Your task to perform on an android device: open a bookmark in the chrome app Image 0: 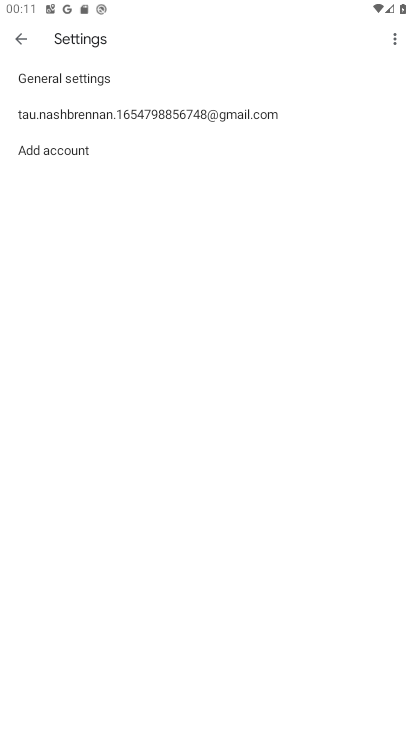
Step 0: click (15, 36)
Your task to perform on an android device: open a bookmark in the chrome app Image 1: 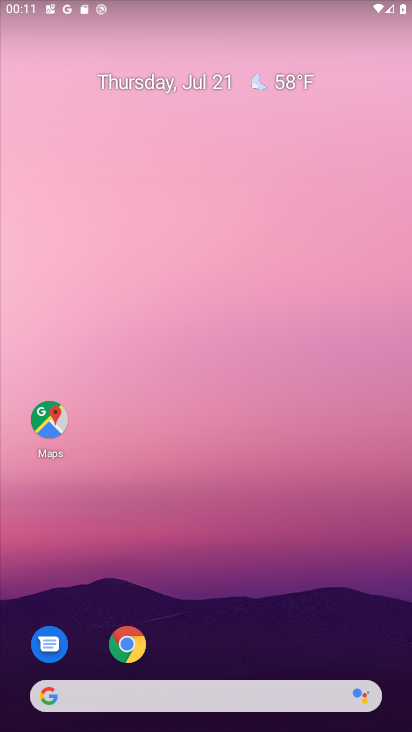
Step 1: click (125, 633)
Your task to perform on an android device: open a bookmark in the chrome app Image 2: 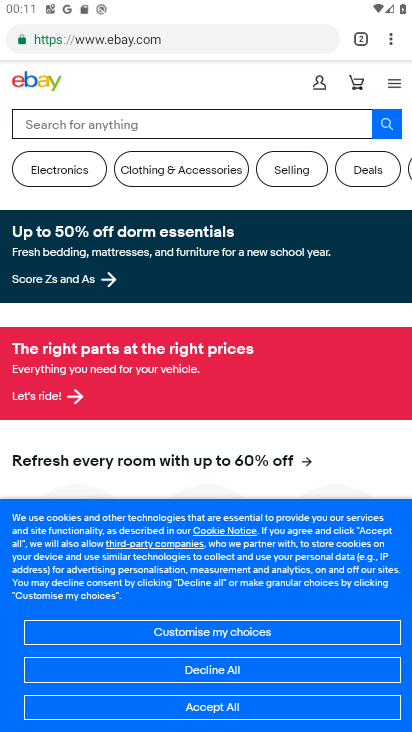
Step 2: click (389, 40)
Your task to perform on an android device: open a bookmark in the chrome app Image 3: 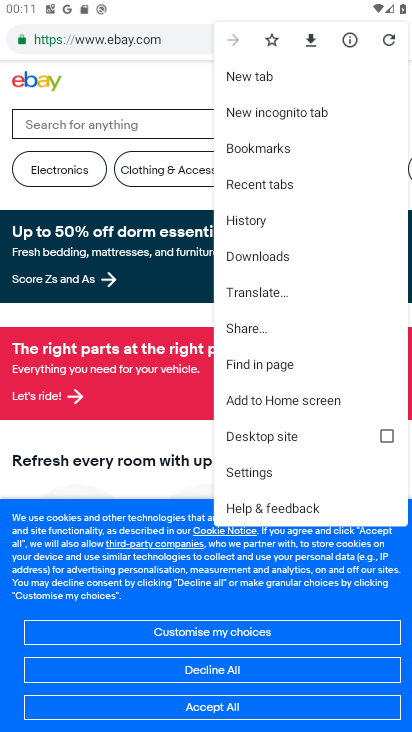
Step 3: click (301, 145)
Your task to perform on an android device: open a bookmark in the chrome app Image 4: 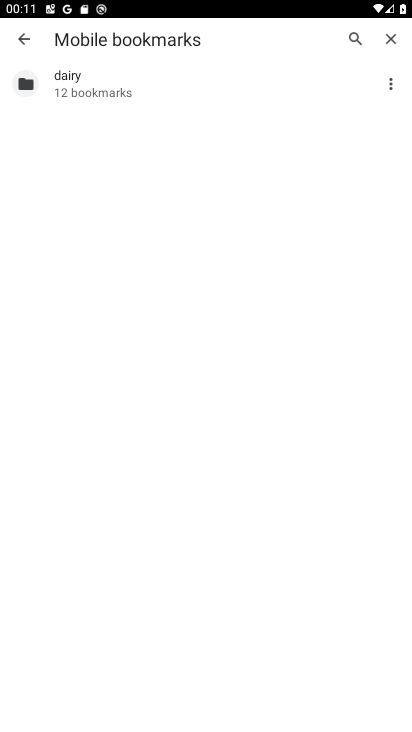
Step 4: click (394, 75)
Your task to perform on an android device: open a bookmark in the chrome app Image 5: 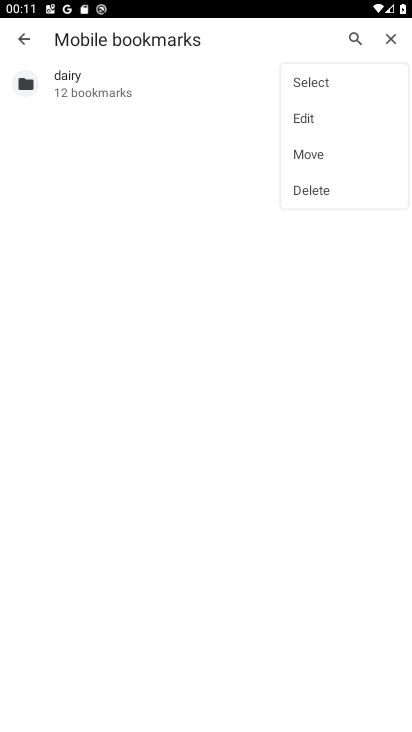
Step 5: click (115, 497)
Your task to perform on an android device: open a bookmark in the chrome app Image 6: 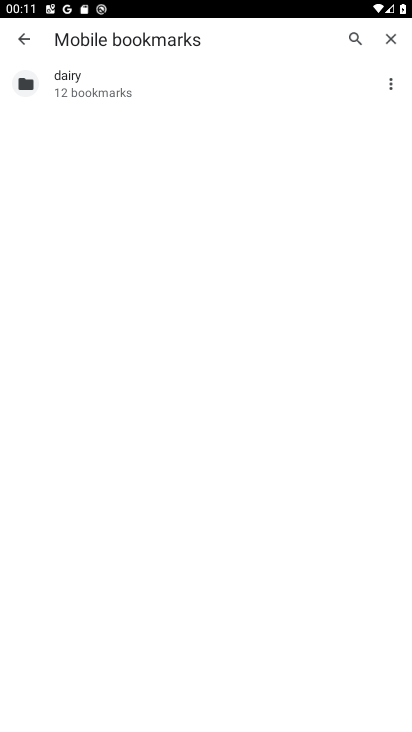
Step 6: click (392, 81)
Your task to perform on an android device: open a bookmark in the chrome app Image 7: 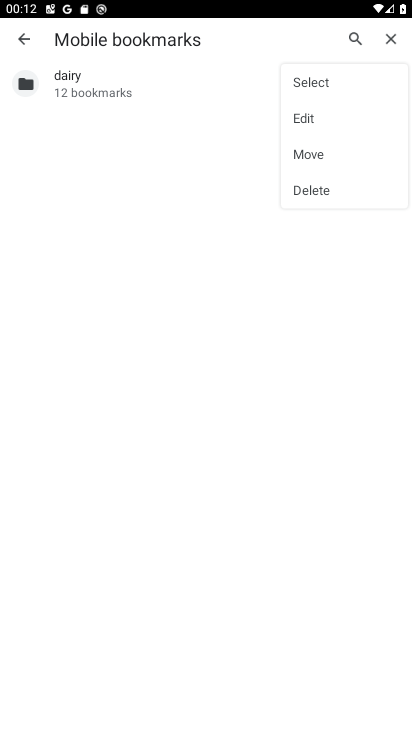
Step 7: click (211, 580)
Your task to perform on an android device: open a bookmark in the chrome app Image 8: 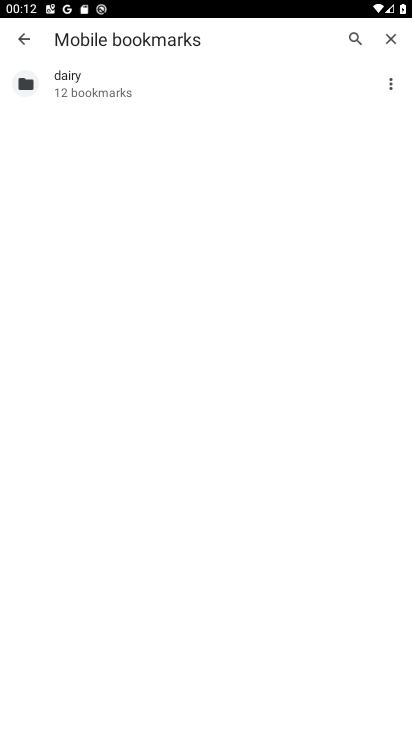
Step 8: click (202, 91)
Your task to perform on an android device: open a bookmark in the chrome app Image 9: 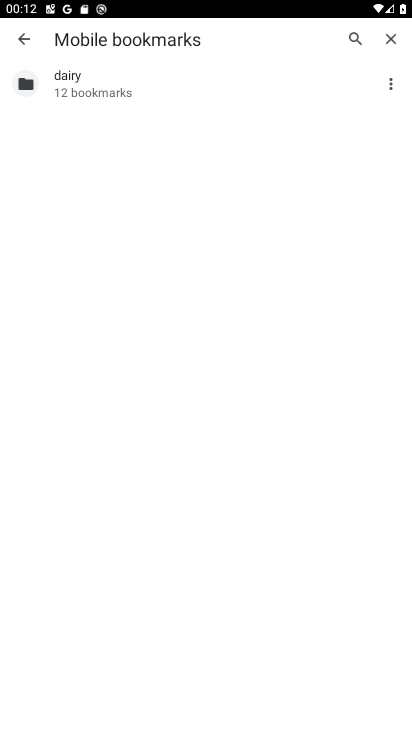
Step 9: click (202, 91)
Your task to perform on an android device: open a bookmark in the chrome app Image 10: 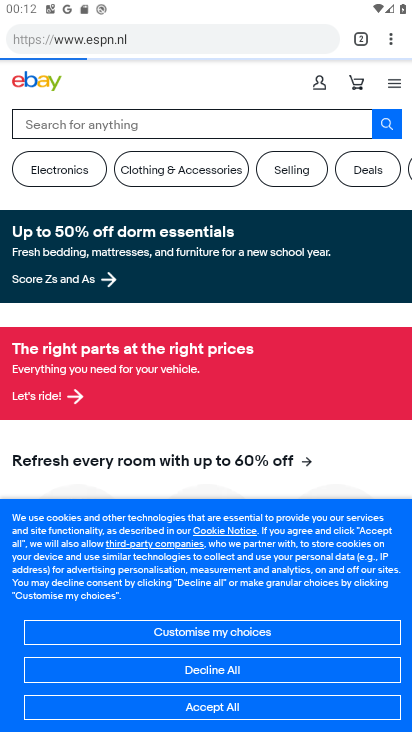
Step 10: click (186, 125)
Your task to perform on an android device: open a bookmark in the chrome app Image 11: 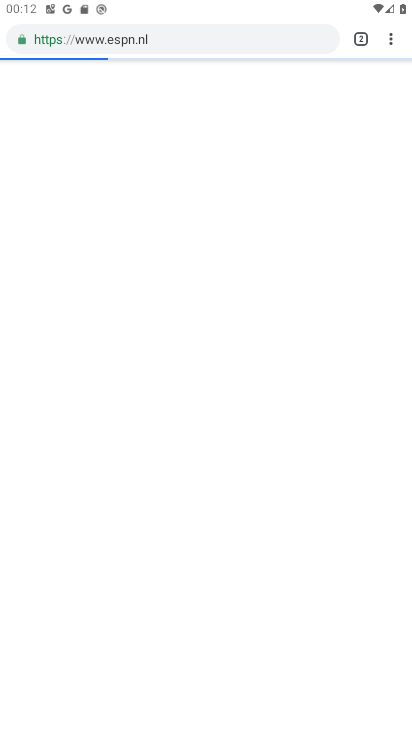
Step 11: click (186, 125)
Your task to perform on an android device: open a bookmark in the chrome app Image 12: 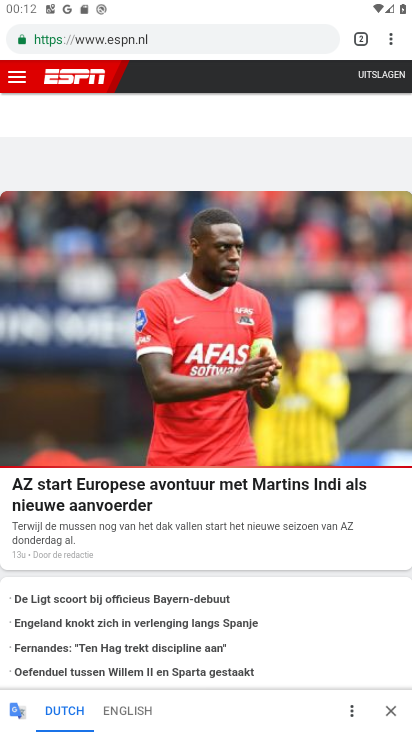
Step 12: task complete